Your task to perform on an android device: open a bookmark in the chrome app Image 0: 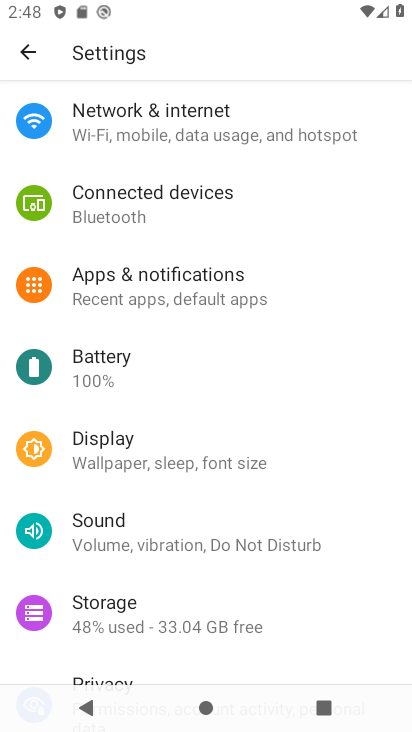
Step 0: press home button
Your task to perform on an android device: open a bookmark in the chrome app Image 1: 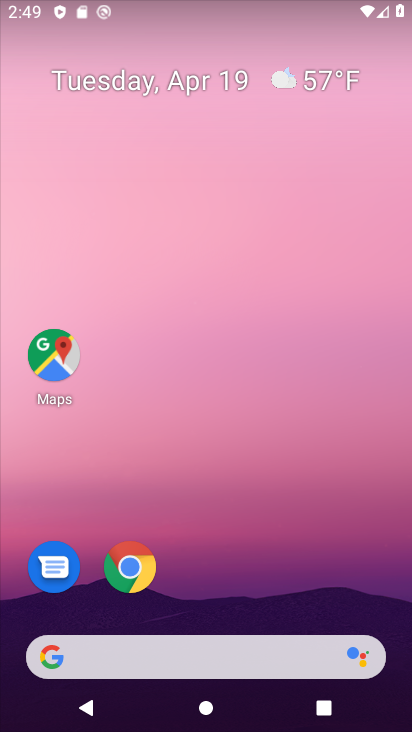
Step 1: drag from (365, 584) to (366, 148)
Your task to perform on an android device: open a bookmark in the chrome app Image 2: 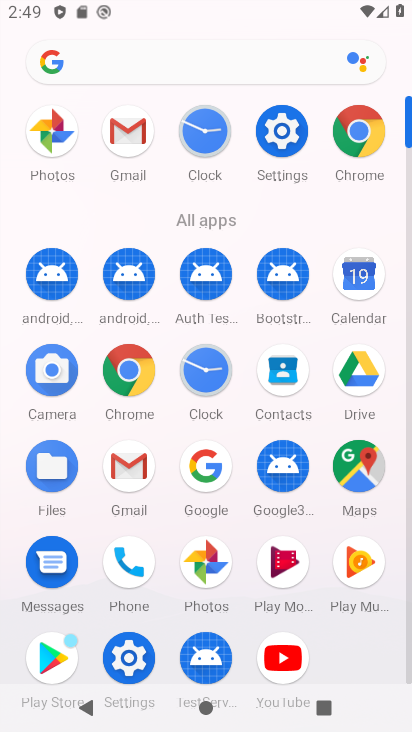
Step 2: click (116, 372)
Your task to perform on an android device: open a bookmark in the chrome app Image 3: 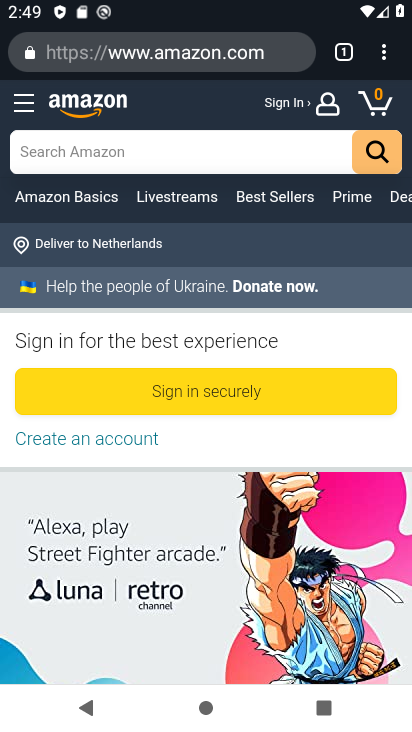
Step 3: click (388, 57)
Your task to perform on an android device: open a bookmark in the chrome app Image 4: 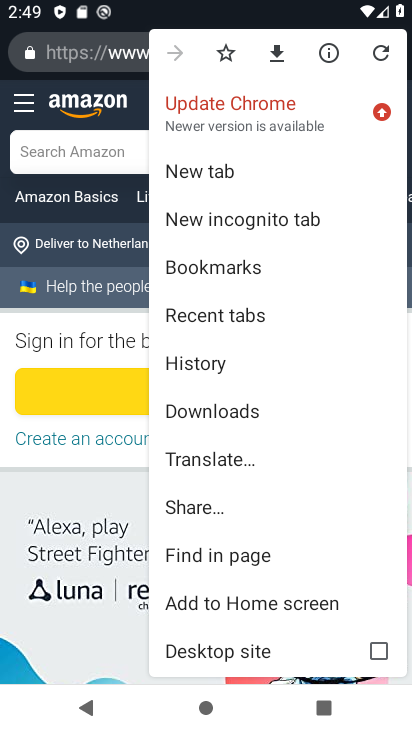
Step 4: click (249, 267)
Your task to perform on an android device: open a bookmark in the chrome app Image 5: 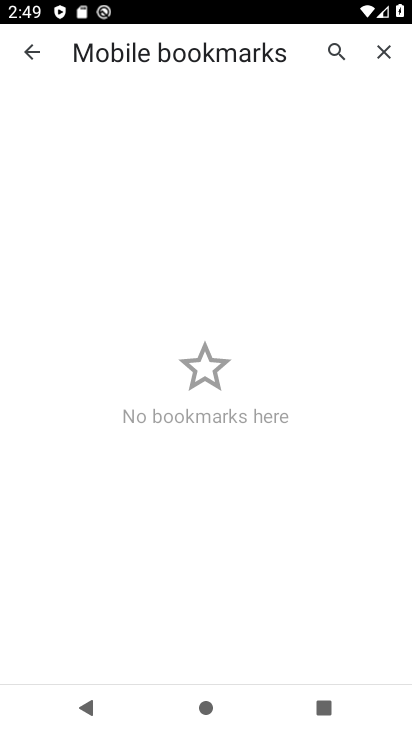
Step 5: task complete